Your task to perform on an android device: Open the Play Movies app and select the watchlist tab. Image 0: 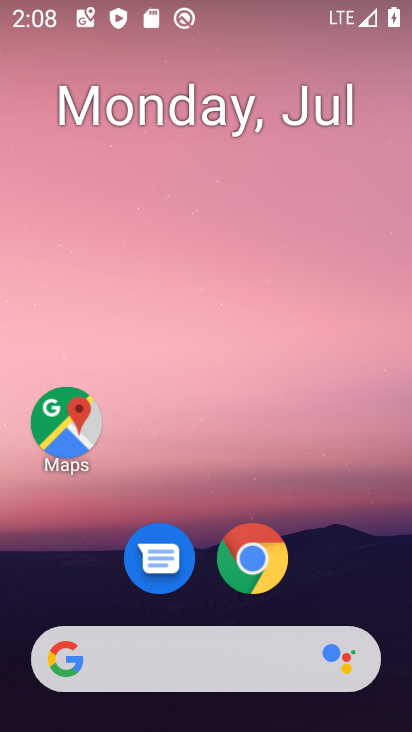
Step 0: drag from (333, 573) to (340, 125)
Your task to perform on an android device: Open the Play Movies app and select the watchlist tab. Image 1: 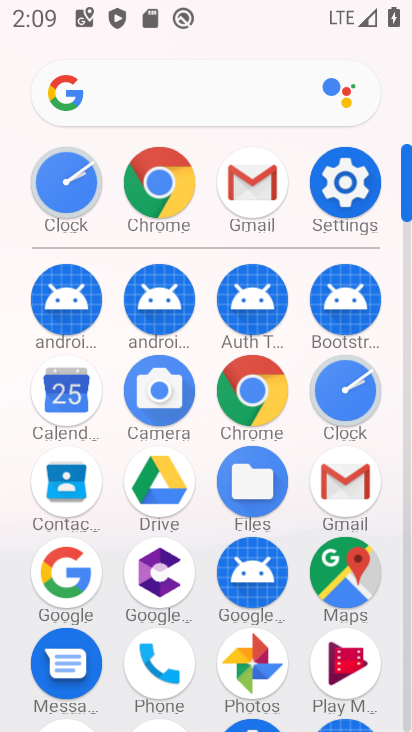
Step 1: click (345, 655)
Your task to perform on an android device: Open the Play Movies app and select the watchlist tab. Image 2: 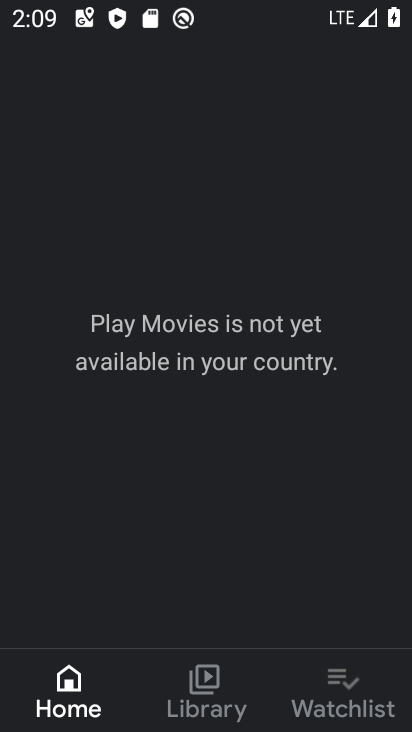
Step 2: click (340, 694)
Your task to perform on an android device: Open the Play Movies app and select the watchlist tab. Image 3: 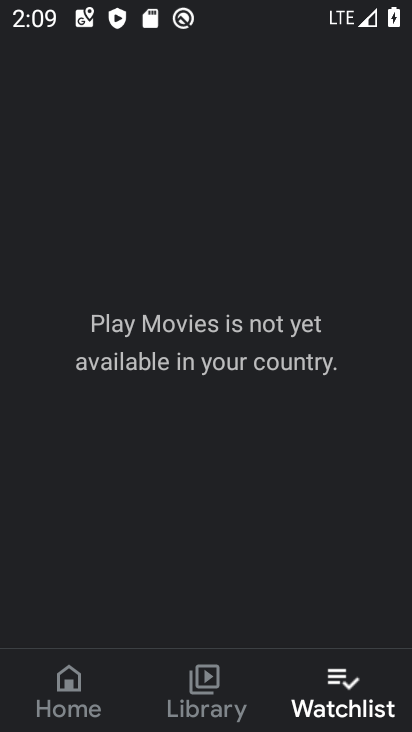
Step 3: task complete